Your task to perform on an android device: Is it going to rain today? Image 0: 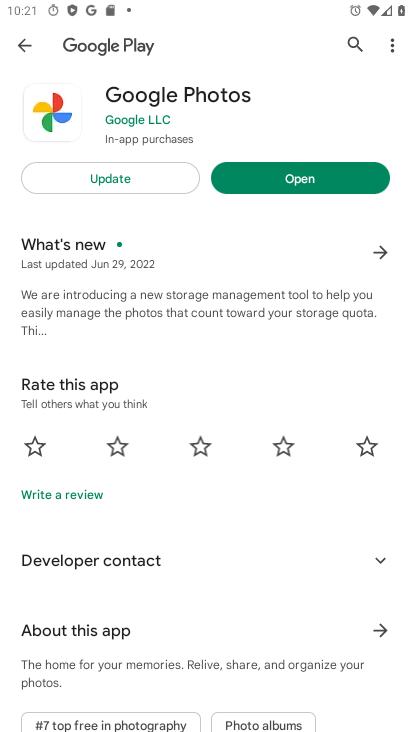
Step 0: press home button
Your task to perform on an android device: Is it going to rain today? Image 1: 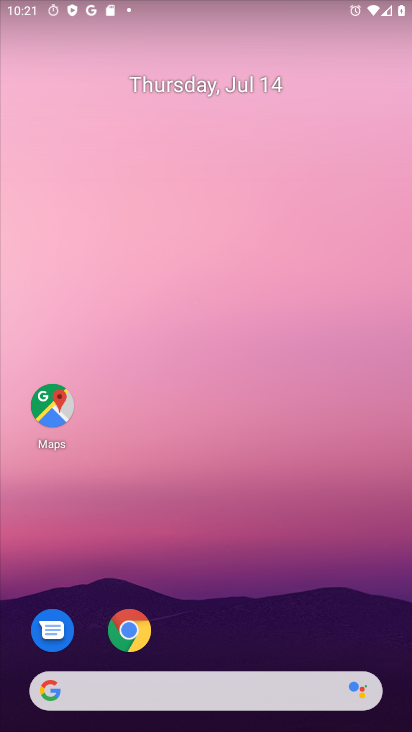
Step 1: click (118, 689)
Your task to perform on an android device: Is it going to rain today? Image 2: 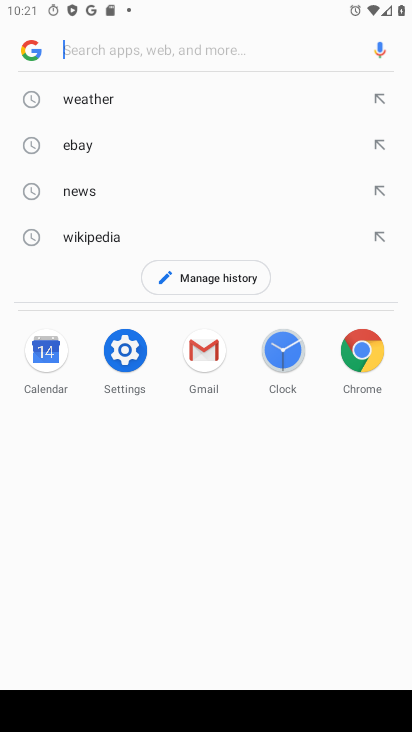
Step 2: type "Is it going to rain today?"
Your task to perform on an android device: Is it going to rain today? Image 3: 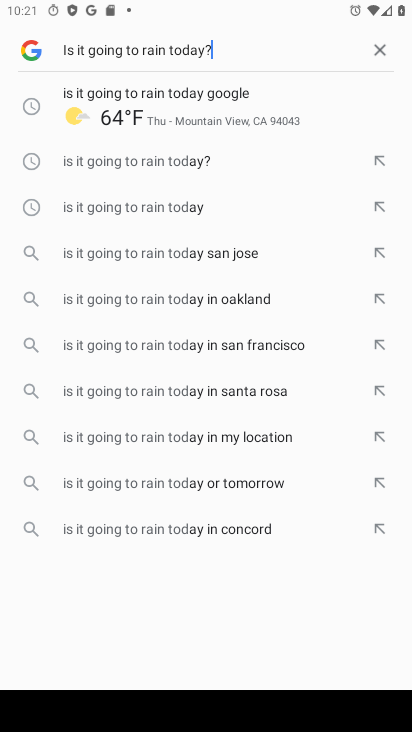
Step 3: type ""
Your task to perform on an android device: Is it going to rain today? Image 4: 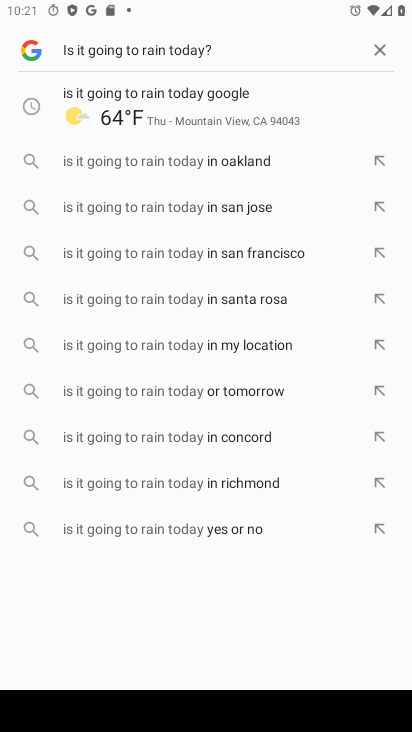
Step 4: type ""
Your task to perform on an android device: Is it going to rain today? Image 5: 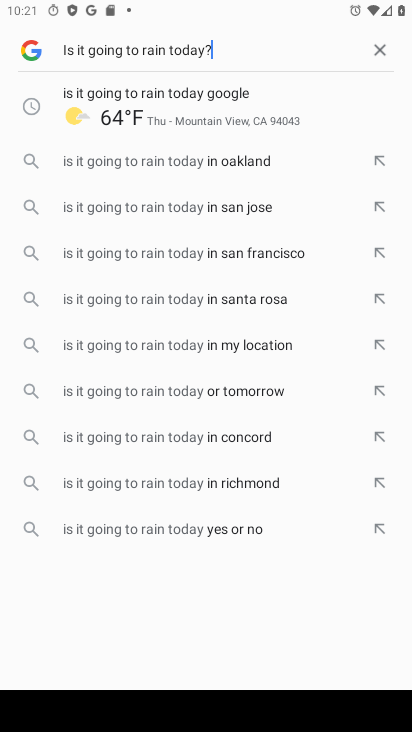
Step 5: type ""
Your task to perform on an android device: Is it going to rain today? Image 6: 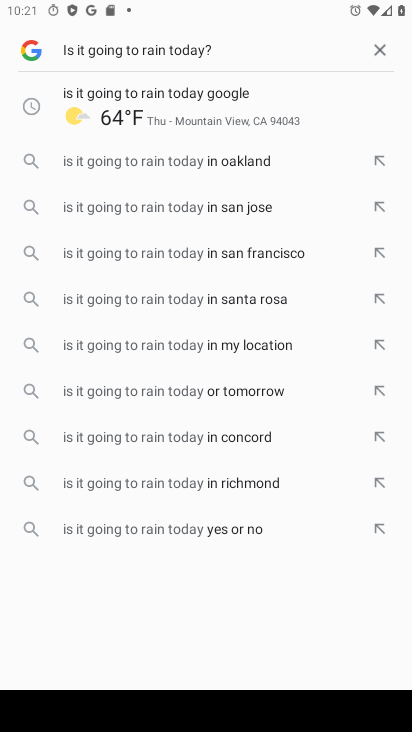
Step 6: task complete